Your task to perform on an android device: Open Google Chrome and click the shortcut for Amazon.com Image 0: 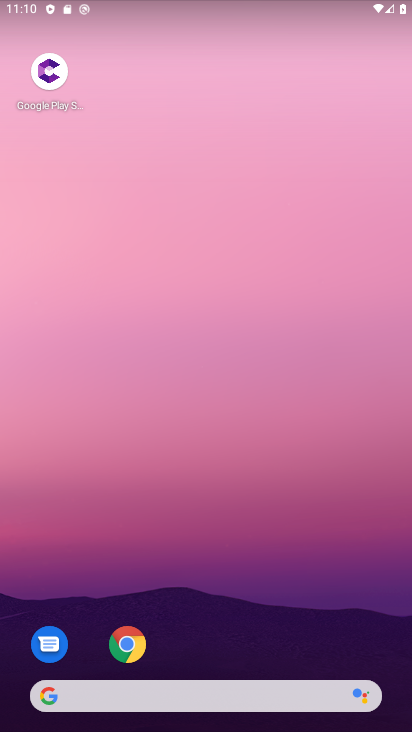
Step 0: click (131, 648)
Your task to perform on an android device: Open Google Chrome and click the shortcut for Amazon.com Image 1: 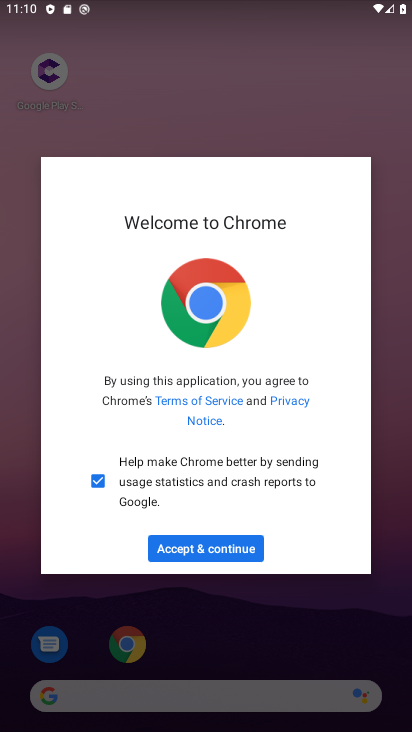
Step 1: click (233, 552)
Your task to perform on an android device: Open Google Chrome and click the shortcut for Amazon.com Image 2: 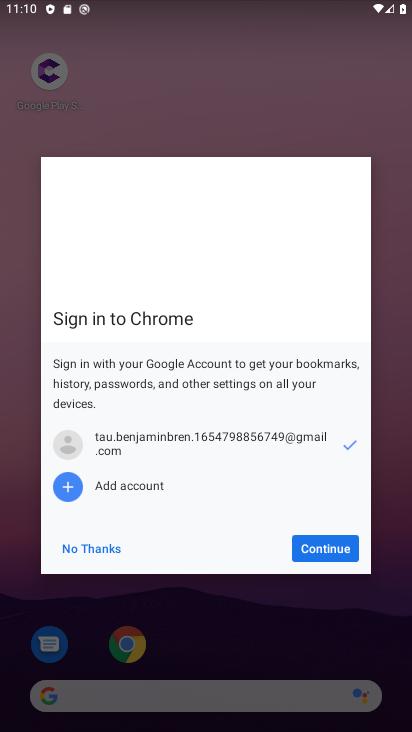
Step 2: click (349, 542)
Your task to perform on an android device: Open Google Chrome and click the shortcut for Amazon.com Image 3: 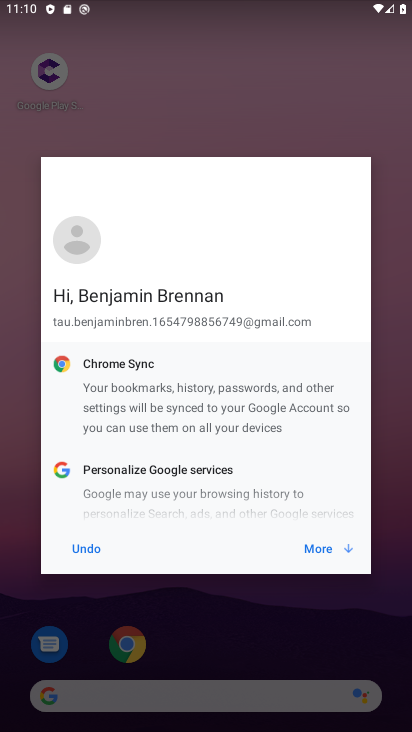
Step 3: click (315, 551)
Your task to perform on an android device: Open Google Chrome and click the shortcut for Amazon.com Image 4: 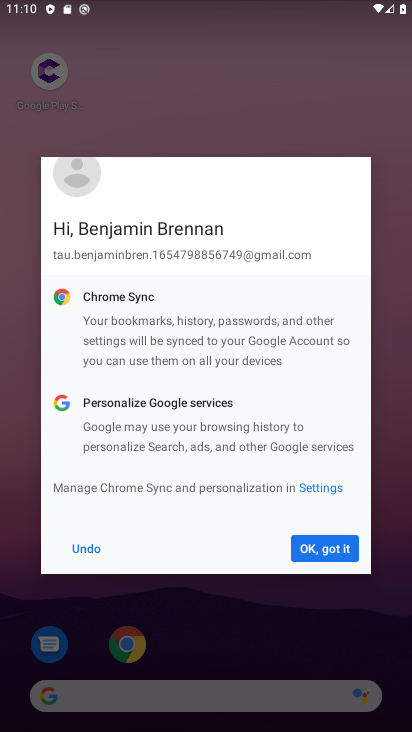
Step 4: click (329, 550)
Your task to perform on an android device: Open Google Chrome and click the shortcut for Amazon.com Image 5: 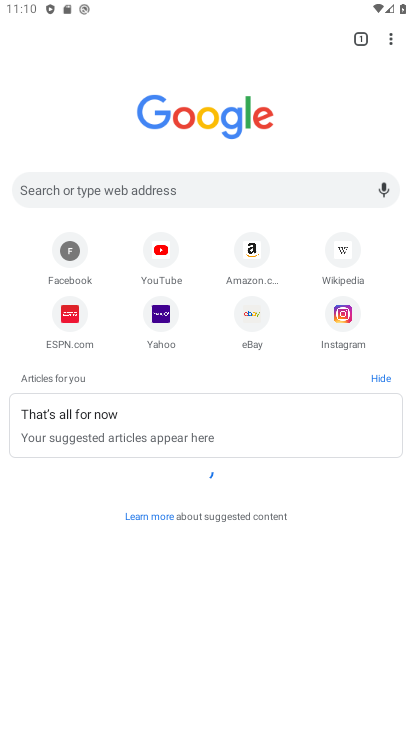
Step 5: click (262, 258)
Your task to perform on an android device: Open Google Chrome and click the shortcut for Amazon.com Image 6: 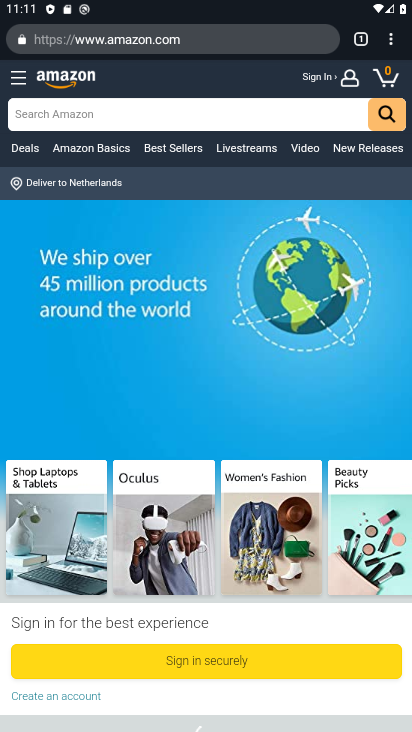
Step 6: task complete